Your task to perform on an android device: Do I have any events today? Image 0: 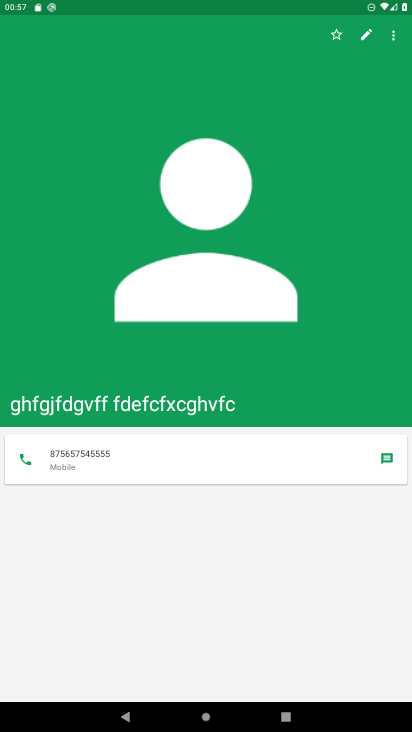
Step 0: press home button
Your task to perform on an android device: Do I have any events today? Image 1: 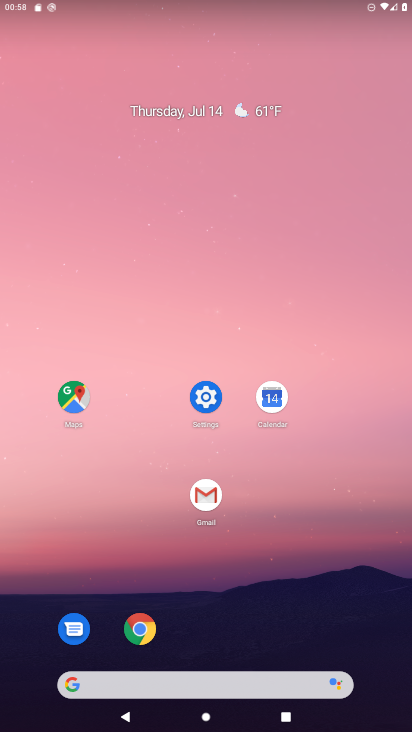
Step 1: drag from (391, 681) to (296, 8)
Your task to perform on an android device: Do I have any events today? Image 2: 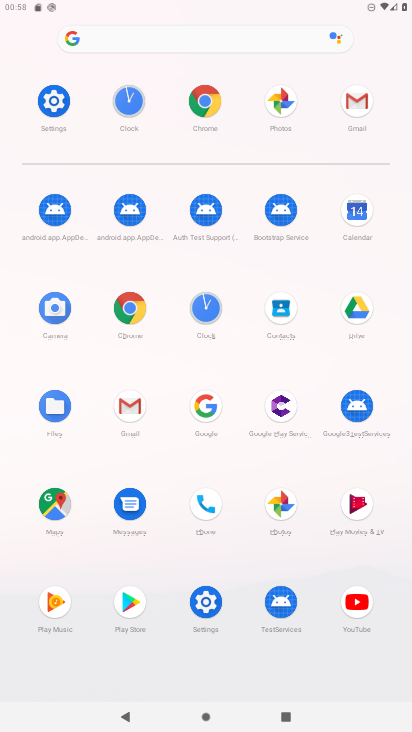
Step 2: click (361, 214)
Your task to perform on an android device: Do I have any events today? Image 3: 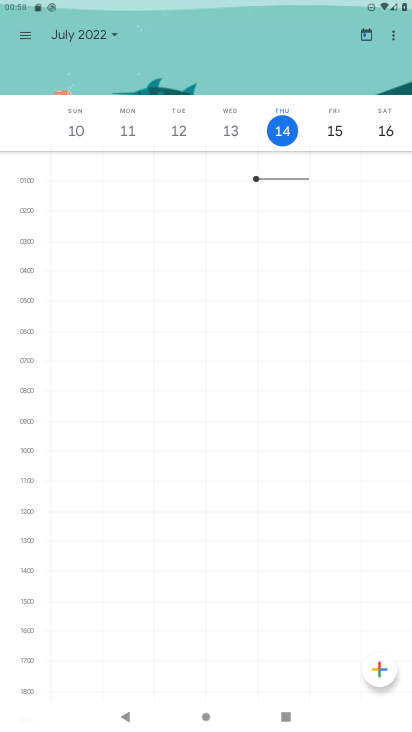
Step 3: click (290, 130)
Your task to perform on an android device: Do I have any events today? Image 4: 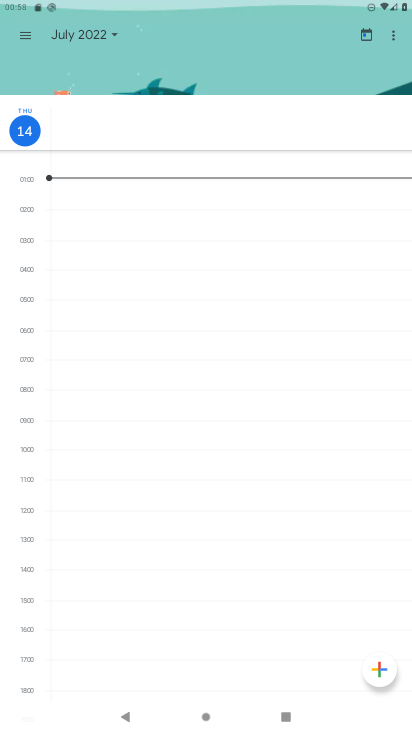
Step 4: click (27, 34)
Your task to perform on an android device: Do I have any events today? Image 5: 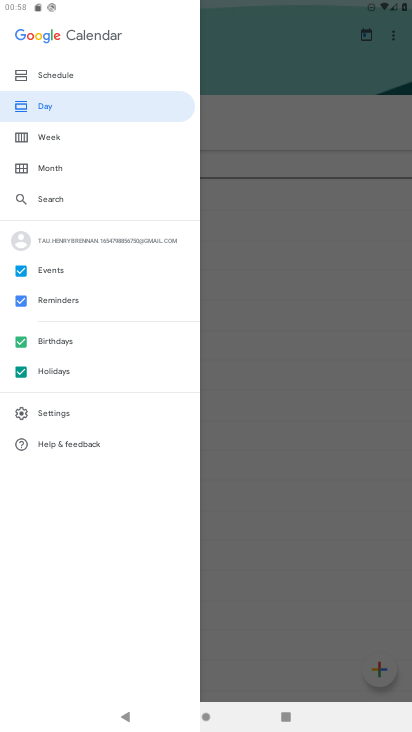
Step 5: click (58, 70)
Your task to perform on an android device: Do I have any events today? Image 6: 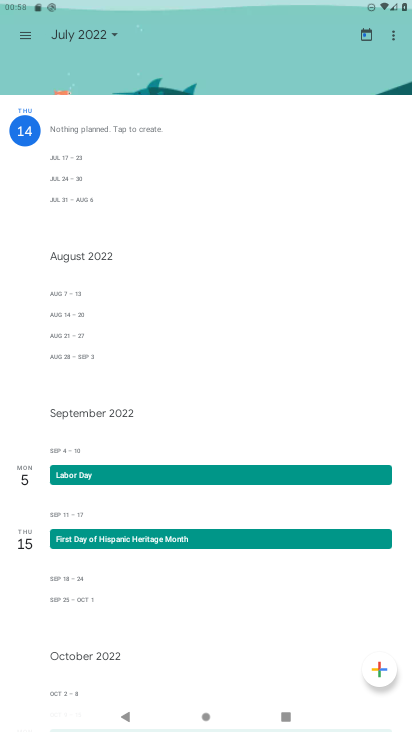
Step 6: task complete